Your task to perform on an android device: Open Android settings Image 0: 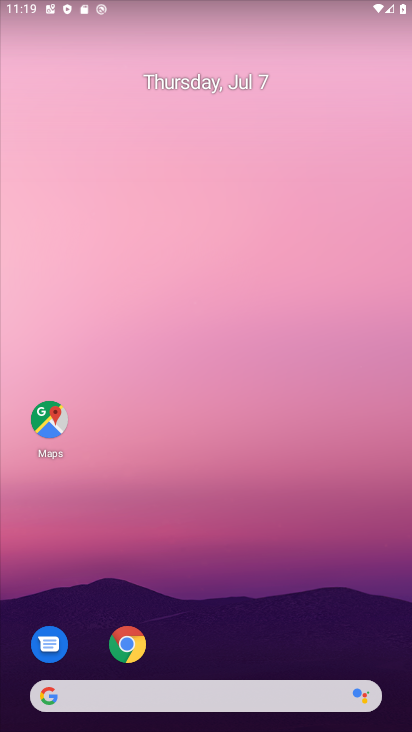
Step 0: drag from (215, 574) to (254, 185)
Your task to perform on an android device: Open Android settings Image 1: 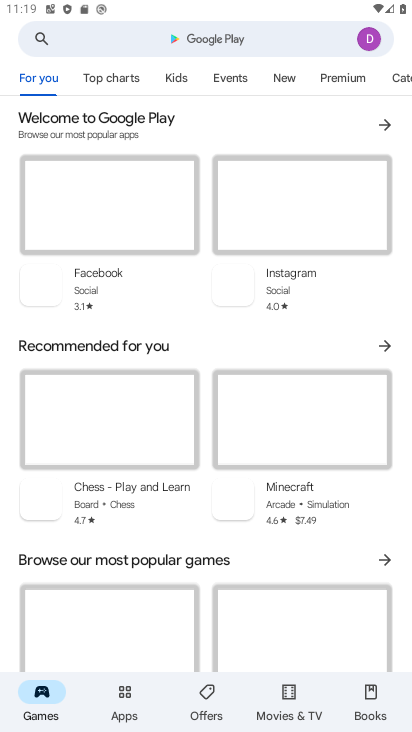
Step 1: drag from (214, 527) to (266, 168)
Your task to perform on an android device: Open Android settings Image 2: 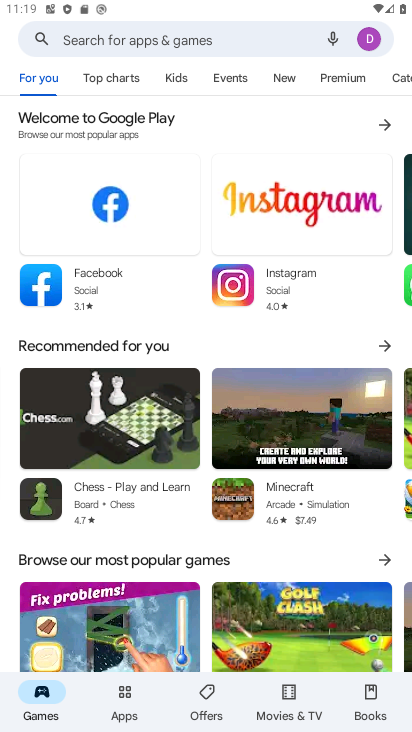
Step 2: press home button
Your task to perform on an android device: Open Android settings Image 3: 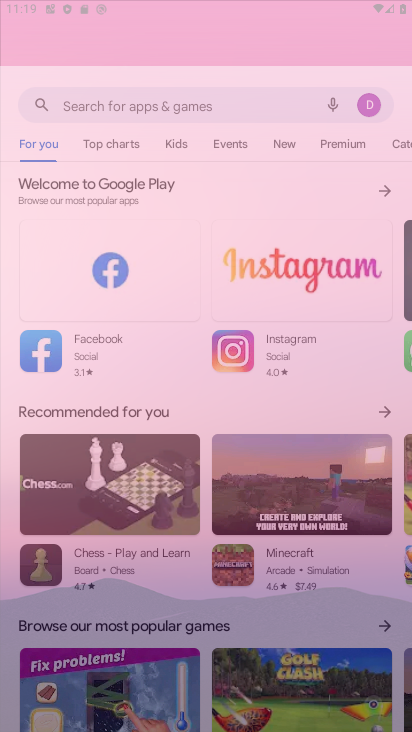
Step 3: drag from (133, 577) to (179, 75)
Your task to perform on an android device: Open Android settings Image 4: 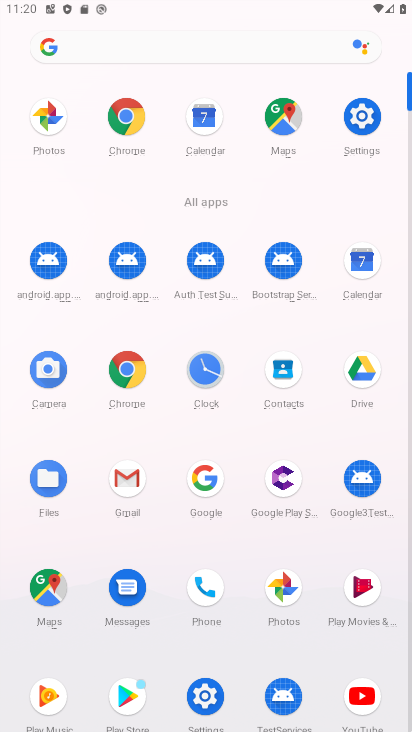
Step 4: click (195, 692)
Your task to perform on an android device: Open Android settings Image 5: 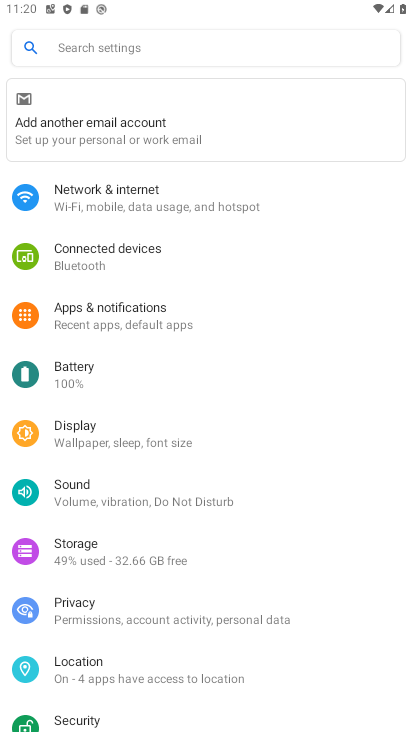
Step 5: drag from (106, 676) to (285, 119)
Your task to perform on an android device: Open Android settings Image 6: 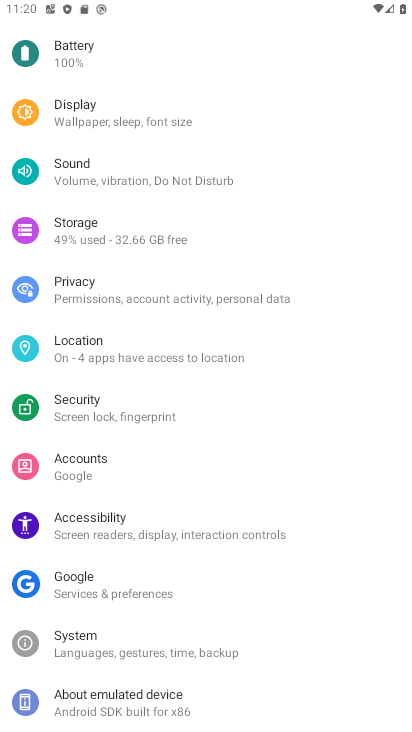
Step 6: click (113, 709)
Your task to perform on an android device: Open Android settings Image 7: 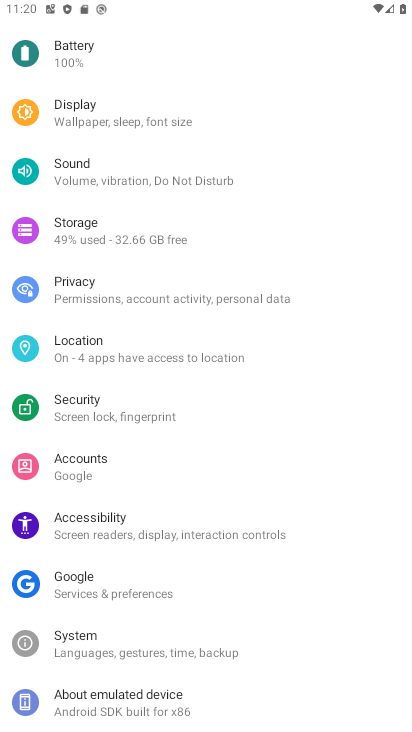
Step 7: click (113, 709)
Your task to perform on an android device: Open Android settings Image 8: 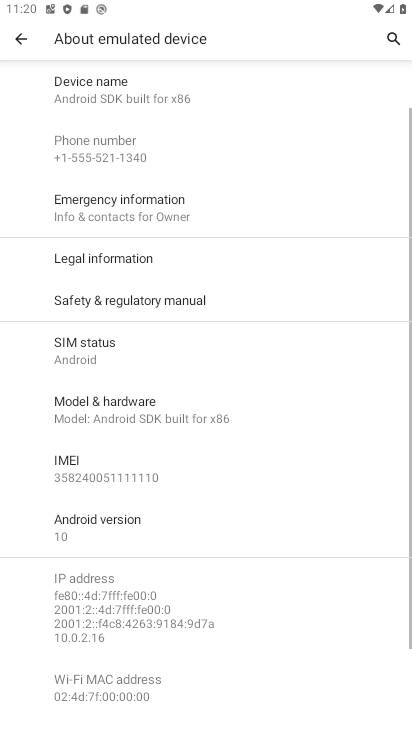
Step 8: drag from (239, 607) to (245, 335)
Your task to perform on an android device: Open Android settings Image 9: 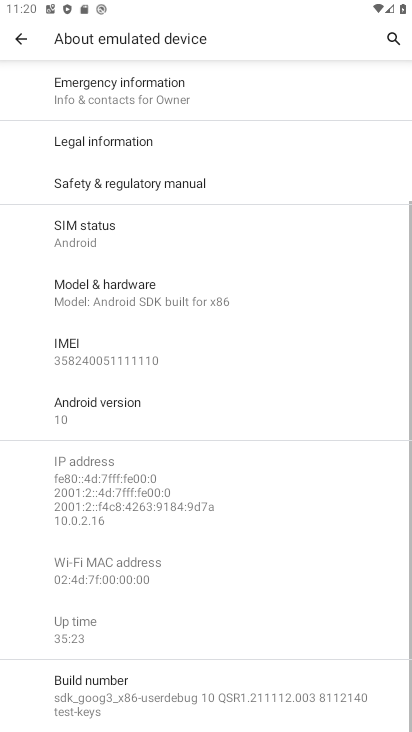
Step 9: click (149, 404)
Your task to perform on an android device: Open Android settings Image 10: 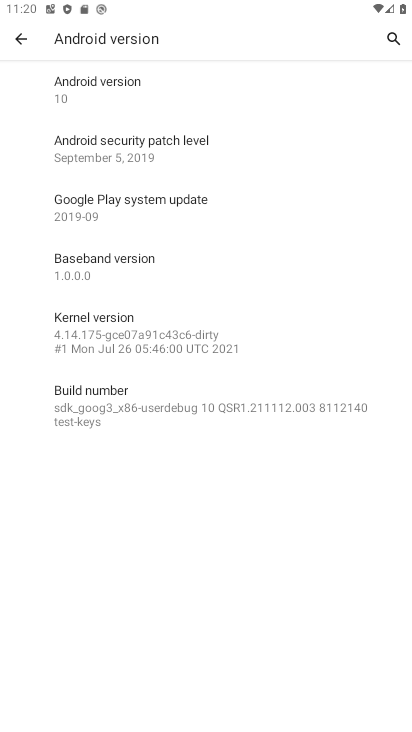
Step 10: task complete